Your task to perform on an android device: move an email to a new category in the gmail app Image 0: 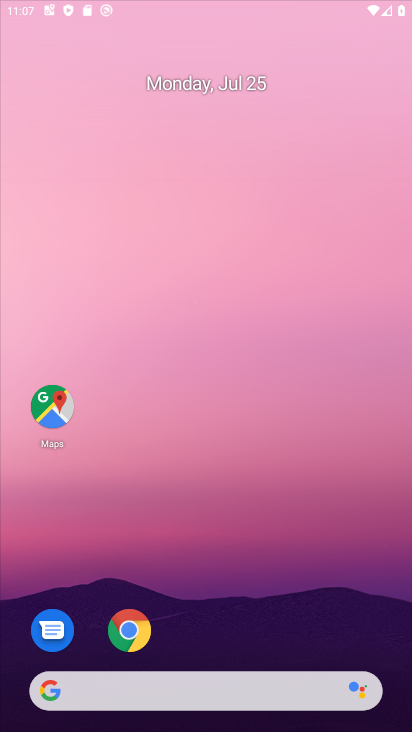
Step 0: press home button
Your task to perform on an android device: move an email to a new category in the gmail app Image 1: 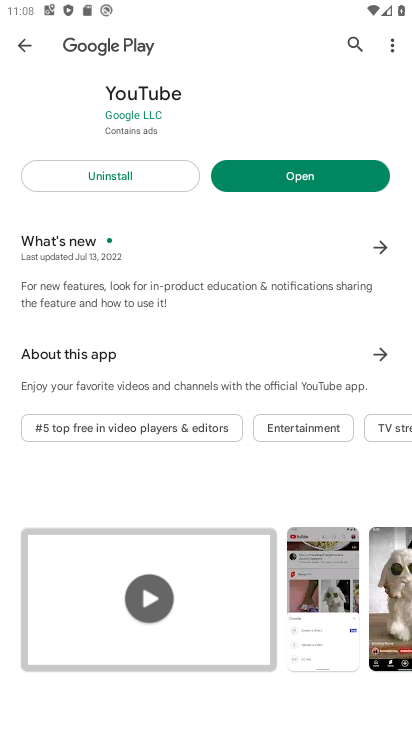
Step 1: drag from (364, 578) to (350, 71)
Your task to perform on an android device: move an email to a new category in the gmail app Image 2: 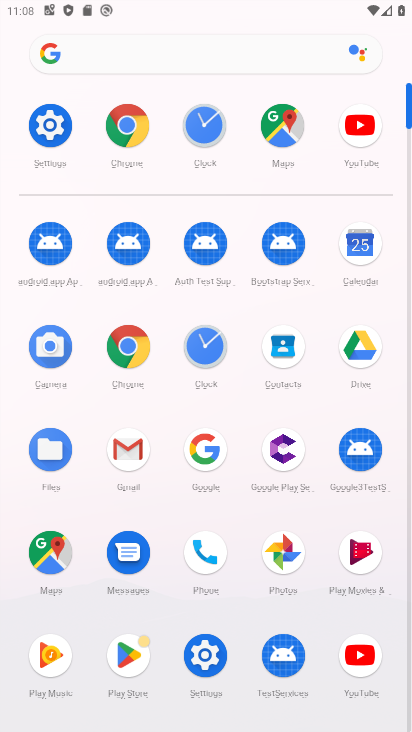
Step 2: click (125, 448)
Your task to perform on an android device: move an email to a new category in the gmail app Image 3: 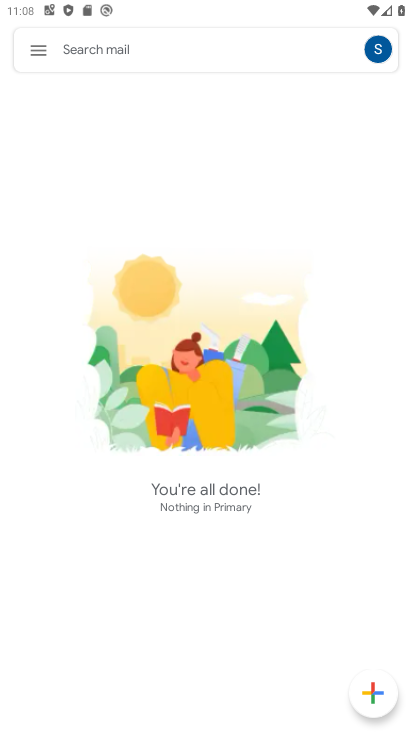
Step 3: click (35, 51)
Your task to perform on an android device: move an email to a new category in the gmail app Image 4: 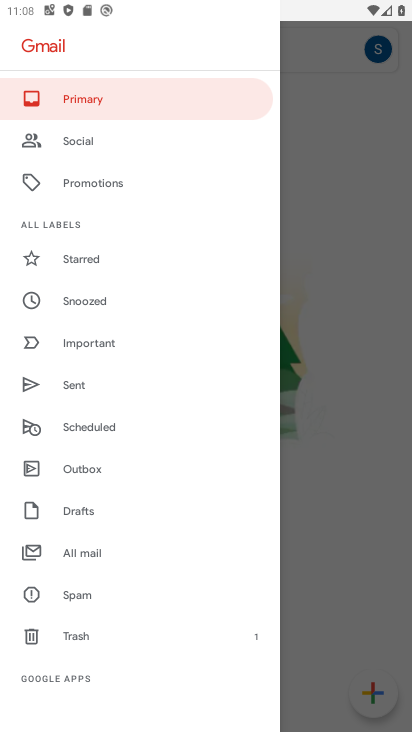
Step 4: drag from (187, 384) to (199, 307)
Your task to perform on an android device: move an email to a new category in the gmail app Image 5: 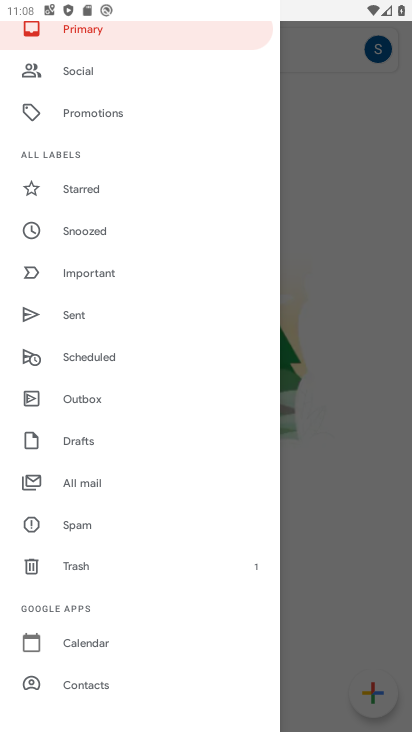
Step 5: drag from (185, 470) to (179, 242)
Your task to perform on an android device: move an email to a new category in the gmail app Image 6: 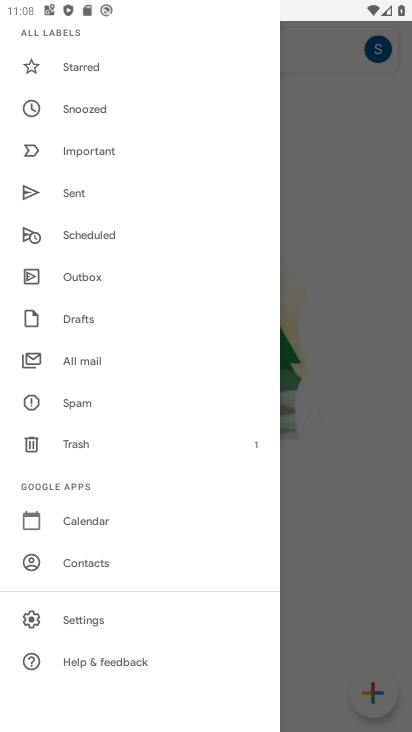
Step 6: click (144, 364)
Your task to perform on an android device: move an email to a new category in the gmail app Image 7: 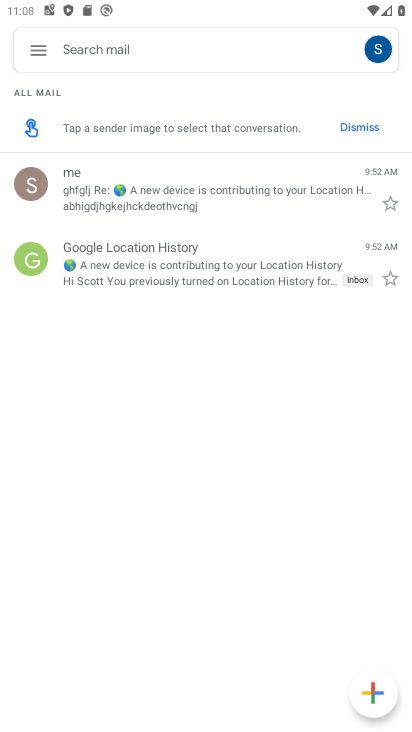
Step 7: click (233, 200)
Your task to perform on an android device: move an email to a new category in the gmail app Image 8: 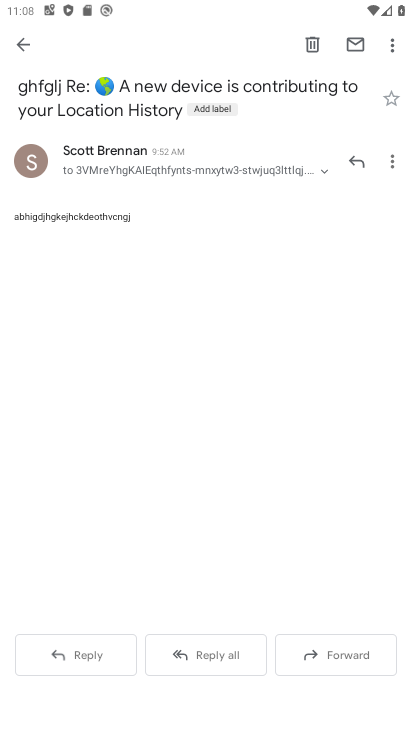
Step 8: click (391, 44)
Your task to perform on an android device: move an email to a new category in the gmail app Image 9: 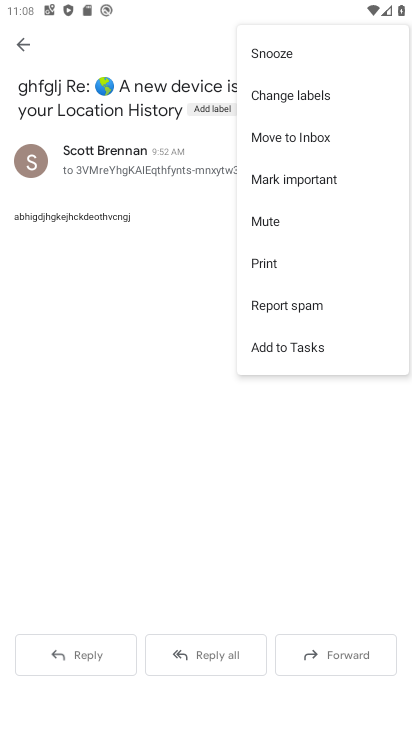
Step 9: click (329, 138)
Your task to perform on an android device: move an email to a new category in the gmail app Image 10: 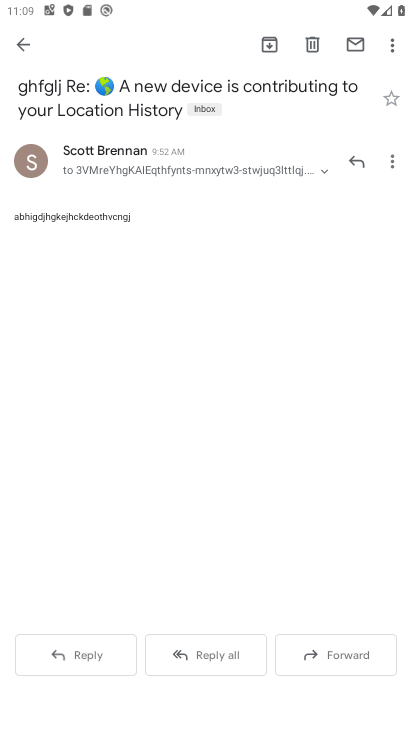
Step 10: task complete